Your task to perform on an android device: refresh tabs in the chrome app Image 0: 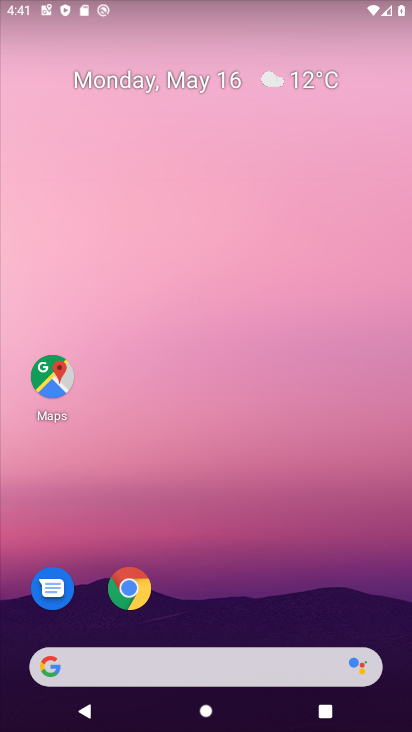
Step 0: click (138, 604)
Your task to perform on an android device: refresh tabs in the chrome app Image 1: 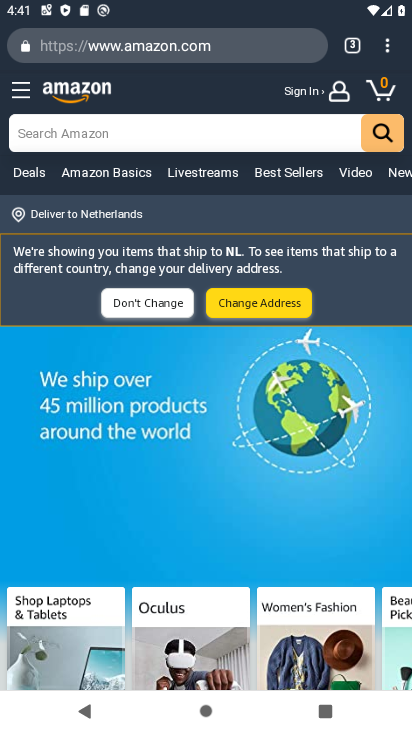
Step 1: click (386, 43)
Your task to perform on an android device: refresh tabs in the chrome app Image 2: 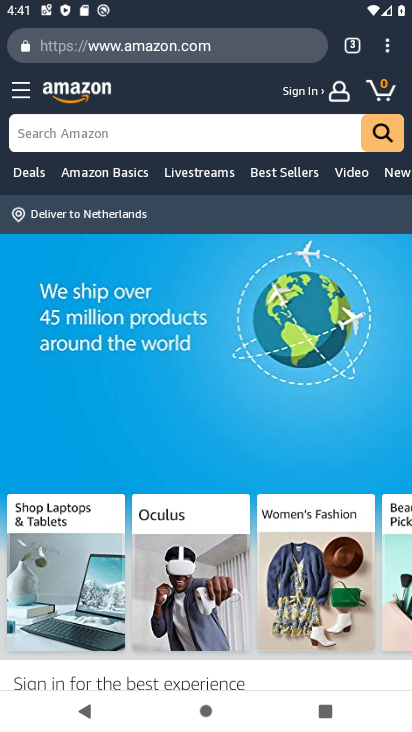
Step 2: task complete